Your task to perform on an android device: Open network settings Image 0: 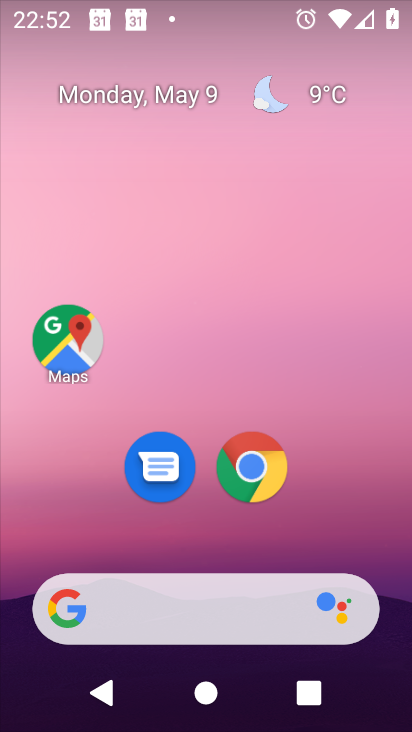
Step 0: drag from (326, 143) to (261, 18)
Your task to perform on an android device: Open network settings Image 1: 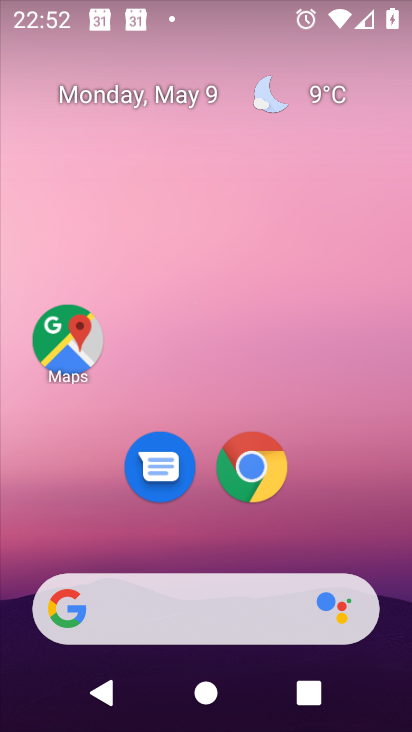
Step 1: drag from (373, 562) to (331, 6)
Your task to perform on an android device: Open network settings Image 2: 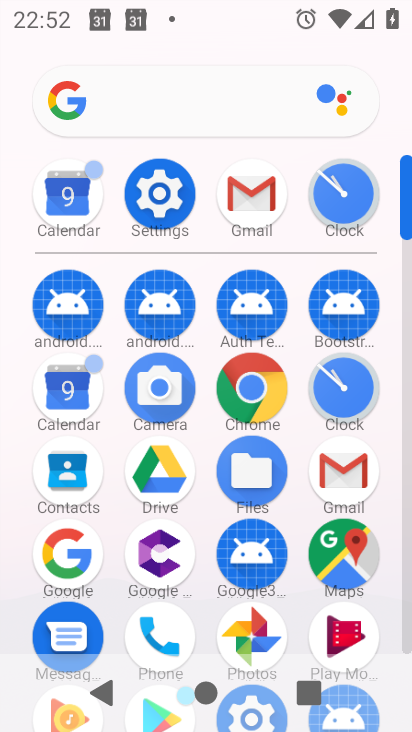
Step 2: click (146, 199)
Your task to perform on an android device: Open network settings Image 3: 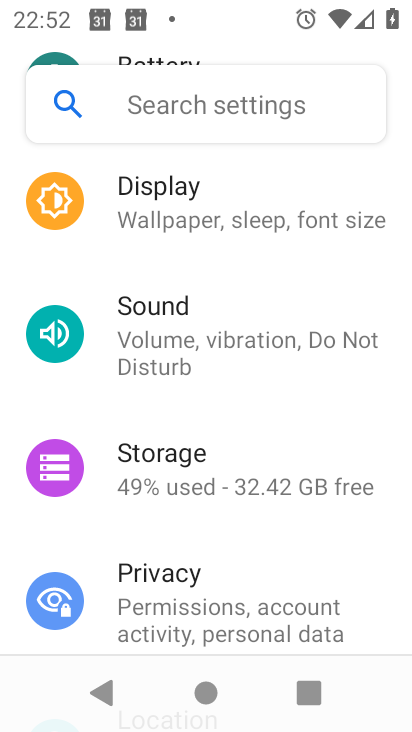
Step 3: drag from (325, 300) to (322, 616)
Your task to perform on an android device: Open network settings Image 4: 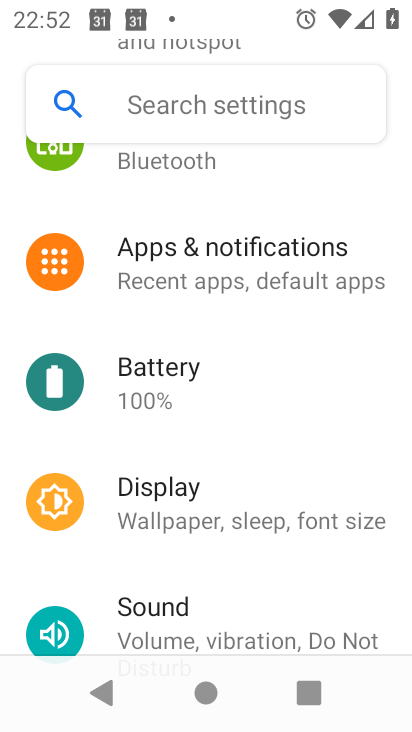
Step 4: drag from (303, 372) to (305, 612)
Your task to perform on an android device: Open network settings Image 5: 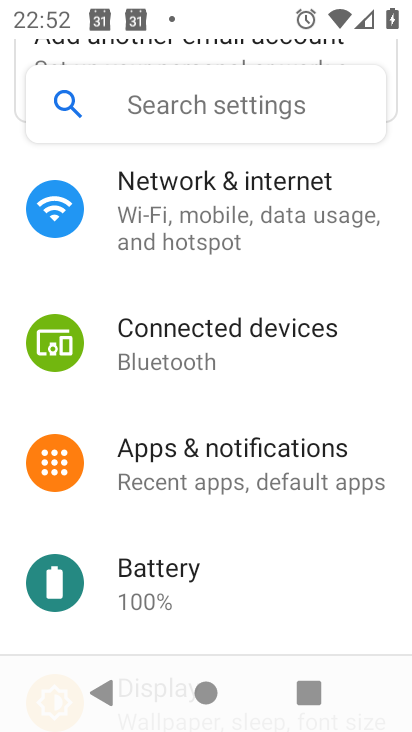
Step 5: click (189, 222)
Your task to perform on an android device: Open network settings Image 6: 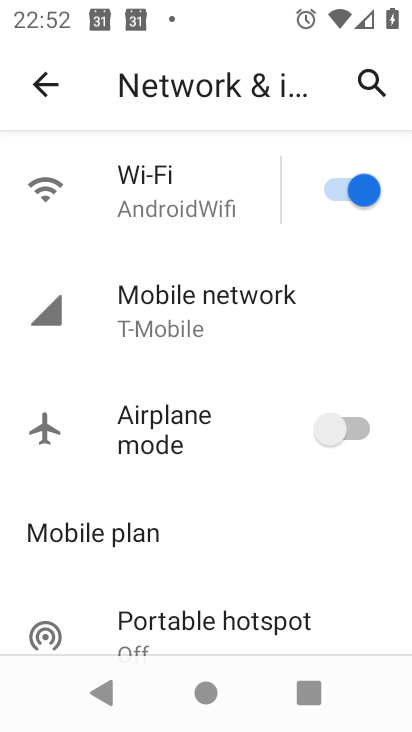
Step 6: click (171, 310)
Your task to perform on an android device: Open network settings Image 7: 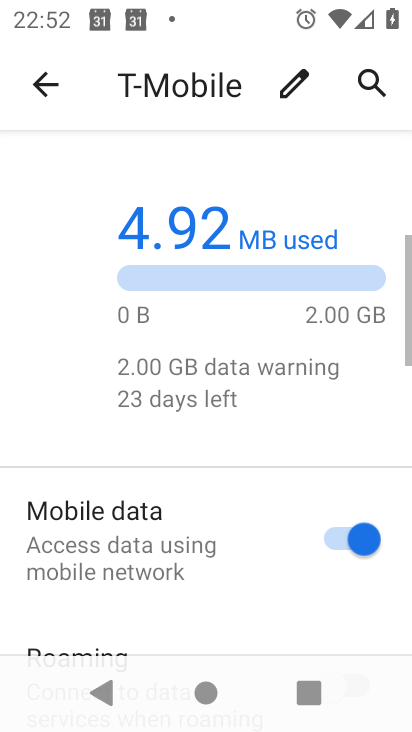
Step 7: drag from (220, 515) to (202, 233)
Your task to perform on an android device: Open network settings Image 8: 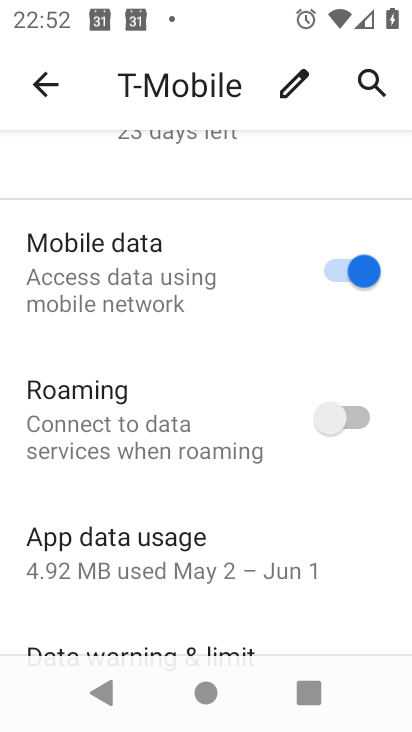
Step 8: drag from (185, 487) to (163, 128)
Your task to perform on an android device: Open network settings Image 9: 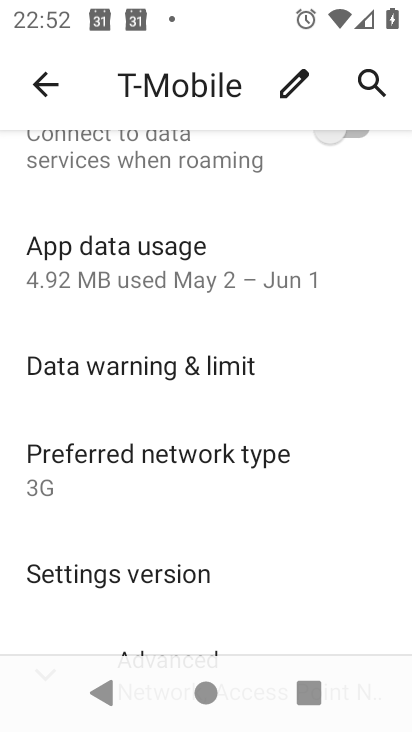
Step 9: drag from (148, 524) to (137, 156)
Your task to perform on an android device: Open network settings Image 10: 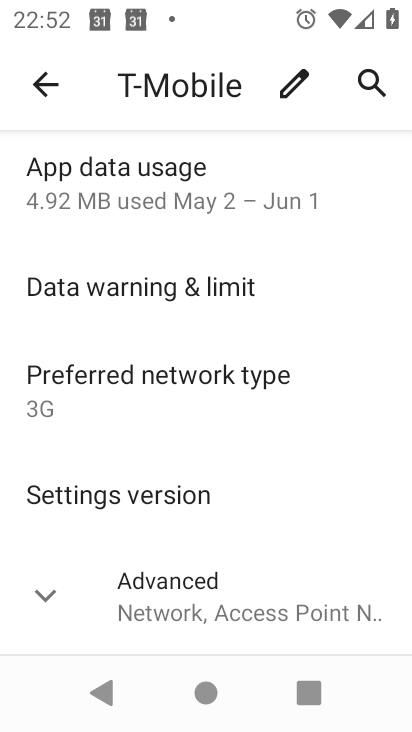
Step 10: click (48, 600)
Your task to perform on an android device: Open network settings Image 11: 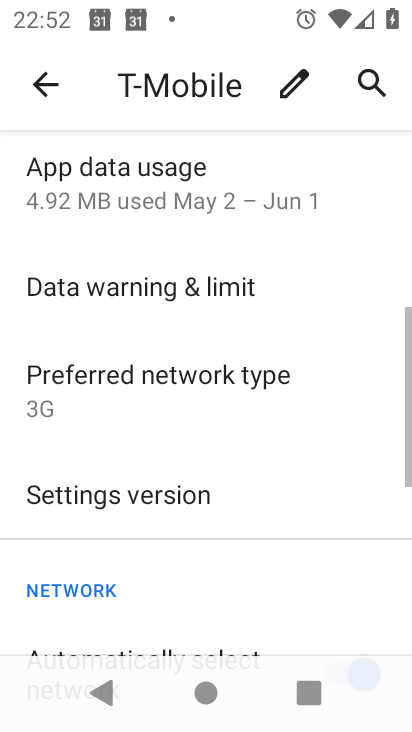
Step 11: task complete